Your task to perform on an android device: Open Google Maps Image 0: 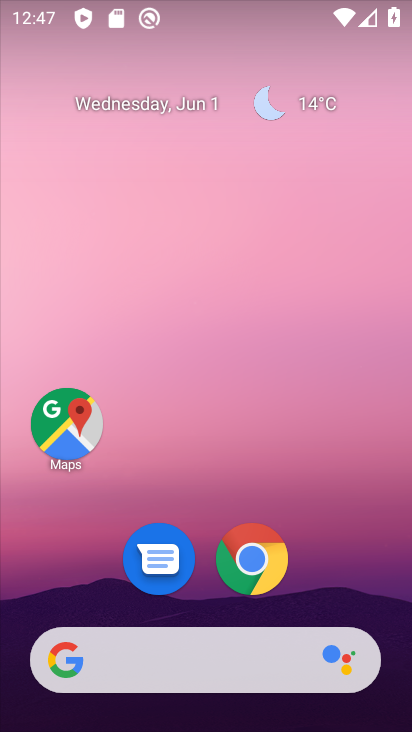
Step 0: click (95, 425)
Your task to perform on an android device: Open Google Maps Image 1: 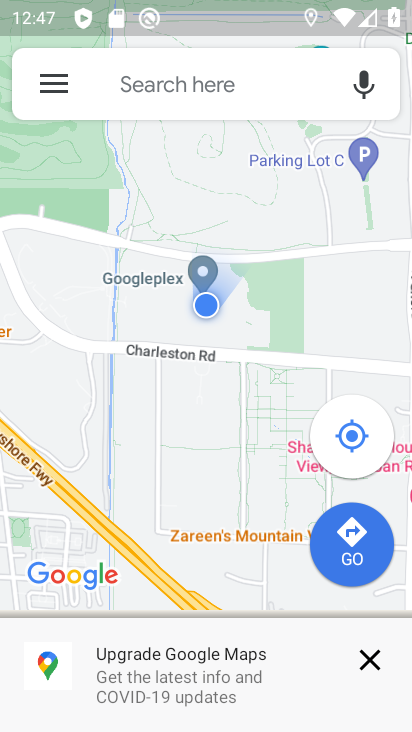
Step 1: task complete